Your task to perform on an android device: What's the weather going to be tomorrow? Image 0: 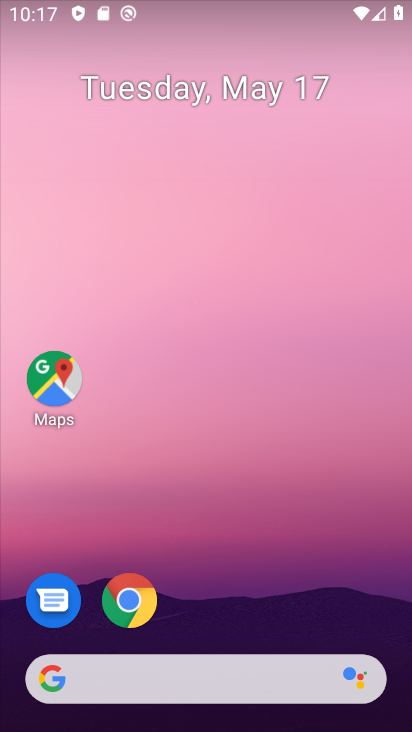
Step 0: drag from (213, 561) to (271, 35)
Your task to perform on an android device: What's the weather going to be tomorrow? Image 1: 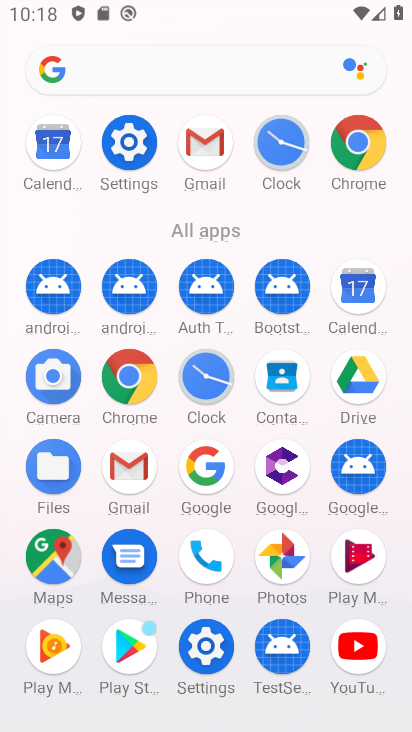
Step 1: click (131, 67)
Your task to perform on an android device: What's the weather going to be tomorrow? Image 2: 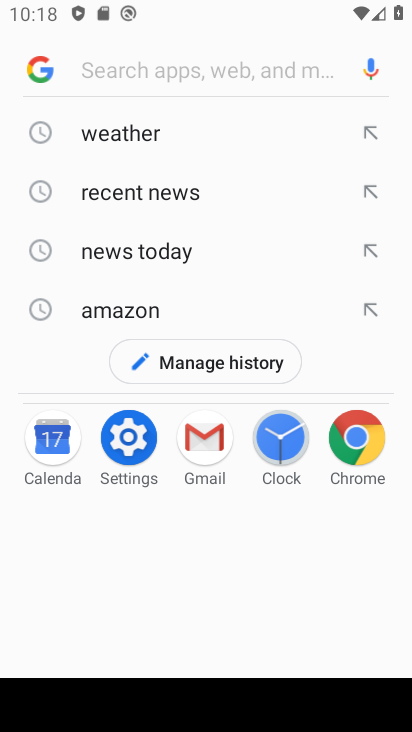
Step 2: click (140, 144)
Your task to perform on an android device: What's the weather going to be tomorrow? Image 3: 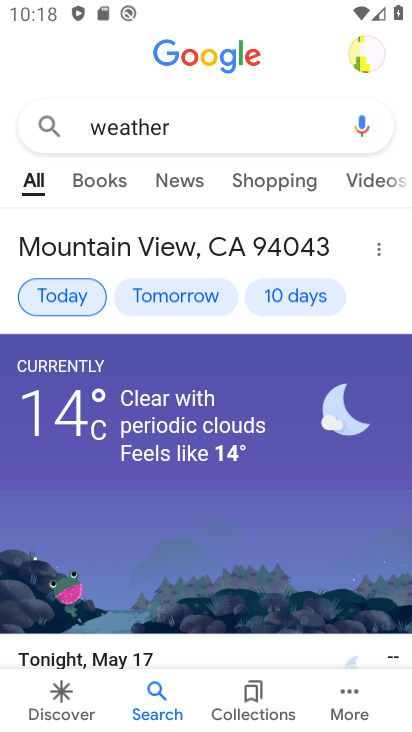
Step 3: click (139, 313)
Your task to perform on an android device: What's the weather going to be tomorrow? Image 4: 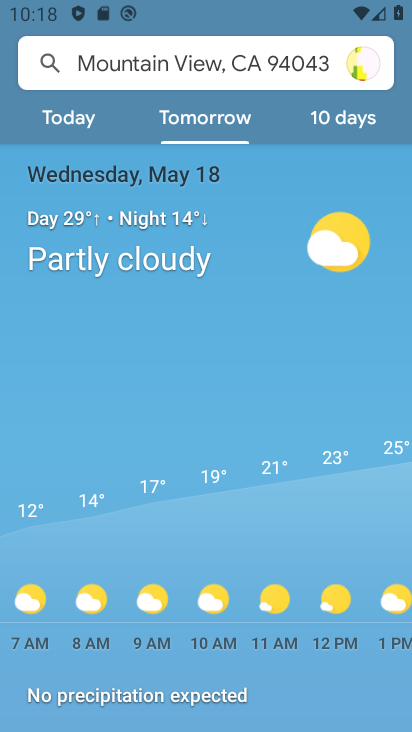
Step 4: task complete